Your task to perform on an android device: turn on bluetooth scan Image 0: 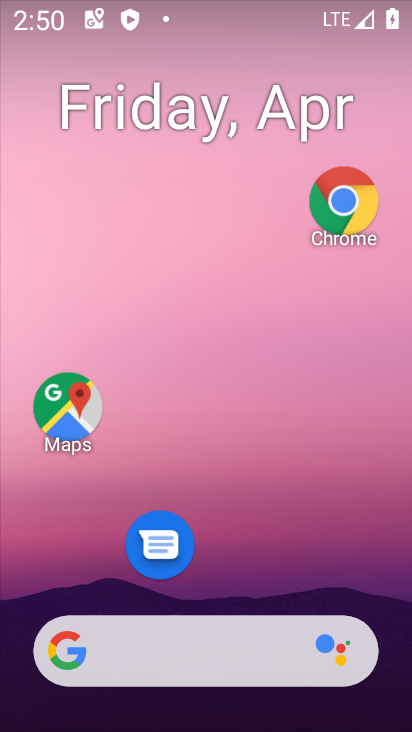
Step 0: click (338, 323)
Your task to perform on an android device: turn on bluetooth scan Image 1: 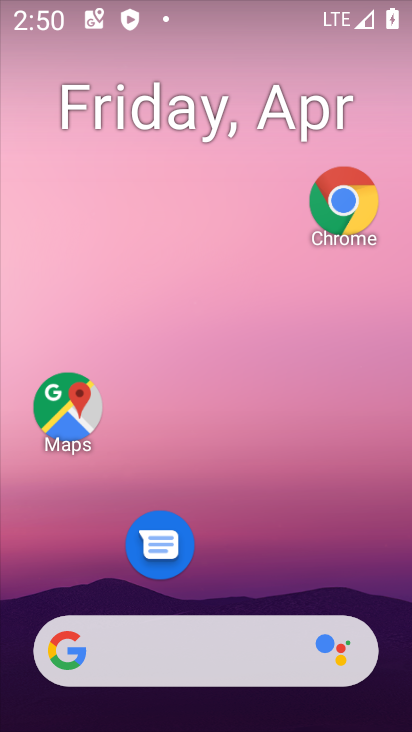
Step 1: drag from (231, 526) to (268, 224)
Your task to perform on an android device: turn on bluetooth scan Image 2: 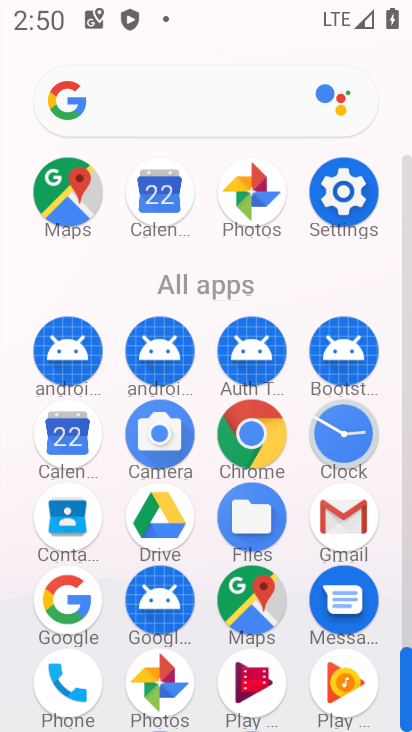
Step 2: click (348, 201)
Your task to perform on an android device: turn on bluetooth scan Image 3: 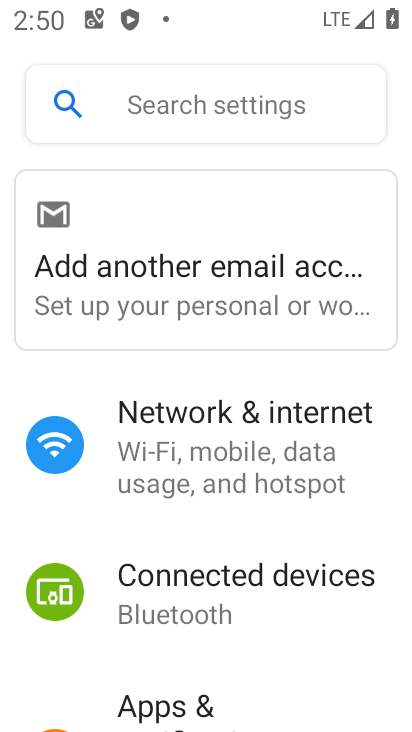
Step 3: drag from (207, 600) to (280, 287)
Your task to perform on an android device: turn on bluetooth scan Image 4: 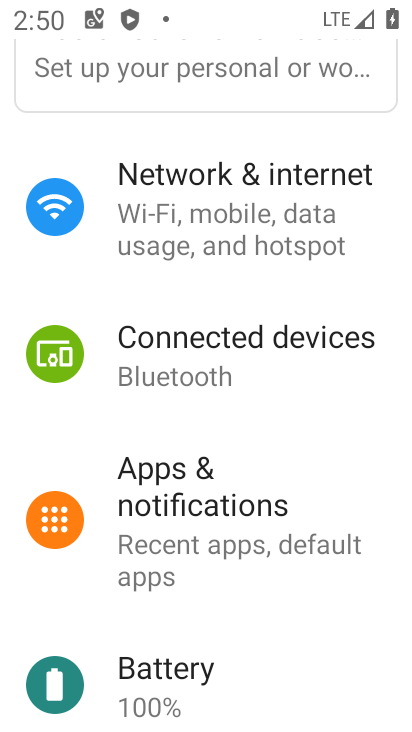
Step 4: drag from (224, 588) to (239, 402)
Your task to perform on an android device: turn on bluetooth scan Image 5: 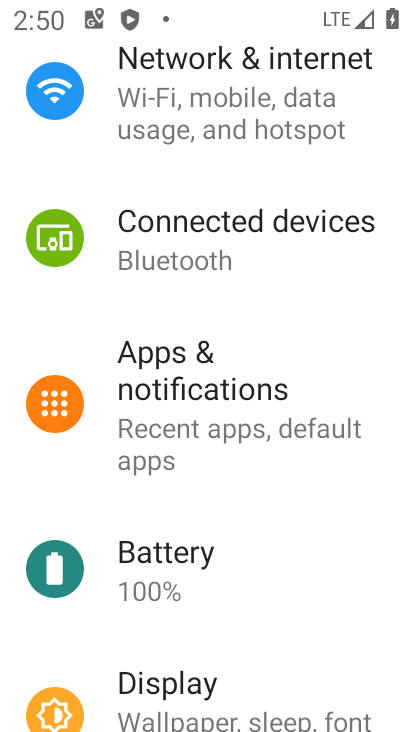
Step 5: drag from (174, 605) to (246, 236)
Your task to perform on an android device: turn on bluetooth scan Image 6: 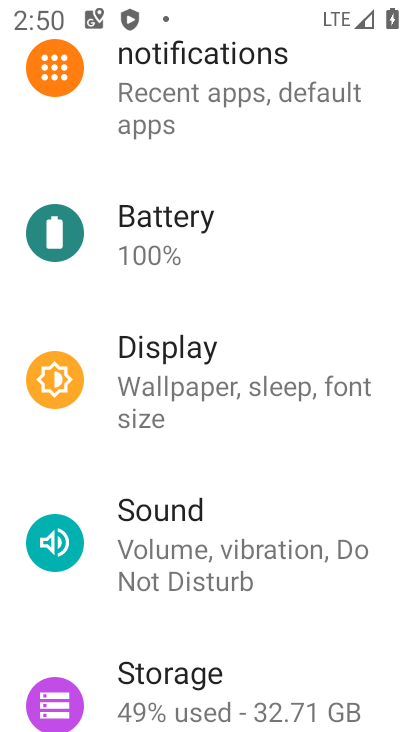
Step 6: drag from (171, 570) to (234, 166)
Your task to perform on an android device: turn on bluetooth scan Image 7: 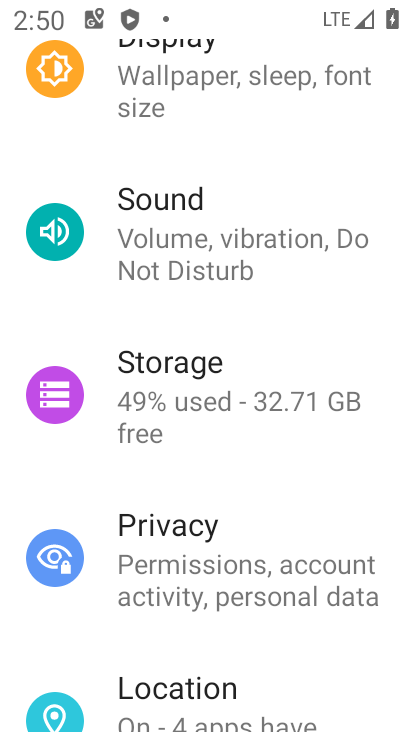
Step 7: drag from (145, 651) to (198, 250)
Your task to perform on an android device: turn on bluetooth scan Image 8: 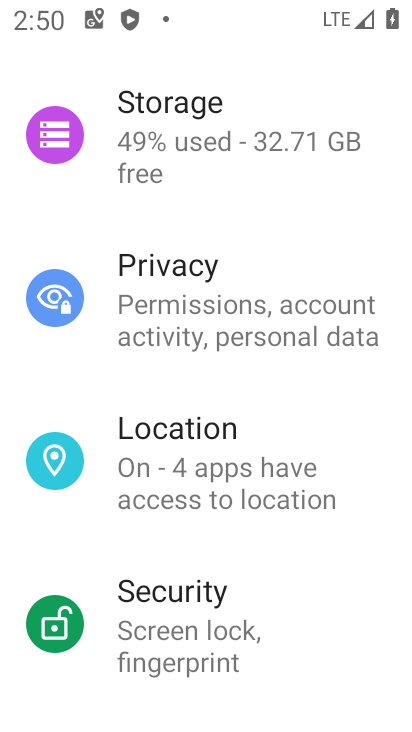
Step 8: click (169, 461)
Your task to perform on an android device: turn on bluetooth scan Image 9: 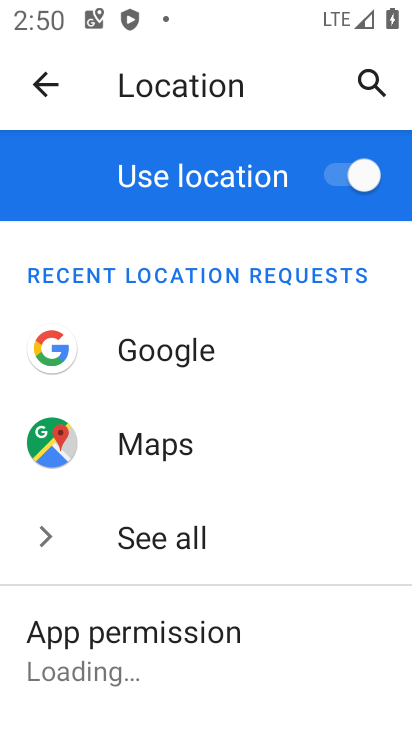
Step 9: drag from (81, 642) to (161, 324)
Your task to perform on an android device: turn on bluetooth scan Image 10: 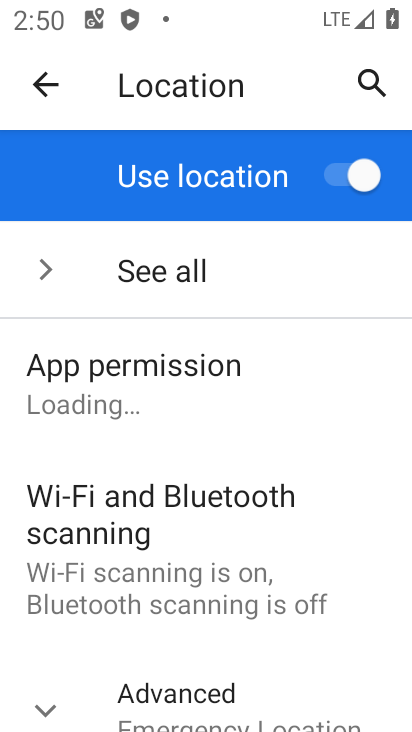
Step 10: click (144, 562)
Your task to perform on an android device: turn on bluetooth scan Image 11: 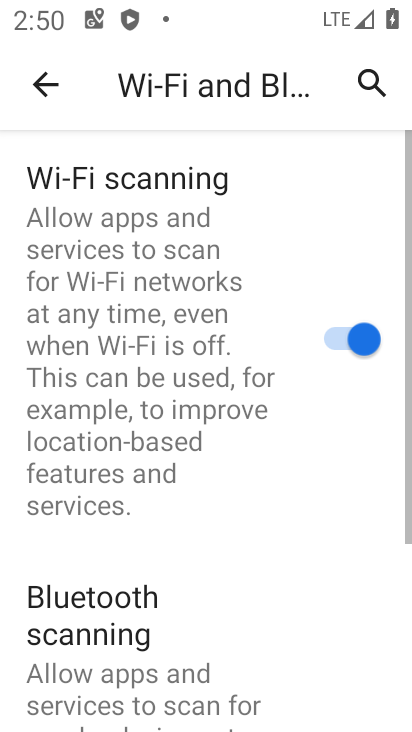
Step 11: drag from (221, 622) to (281, 301)
Your task to perform on an android device: turn on bluetooth scan Image 12: 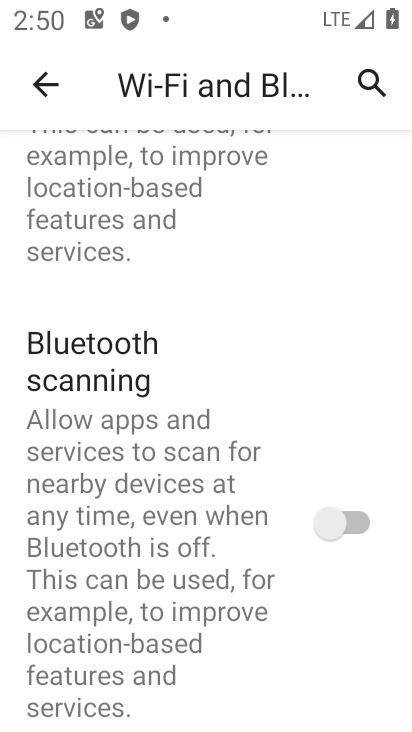
Step 12: click (292, 509)
Your task to perform on an android device: turn on bluetooth scan Image 13: 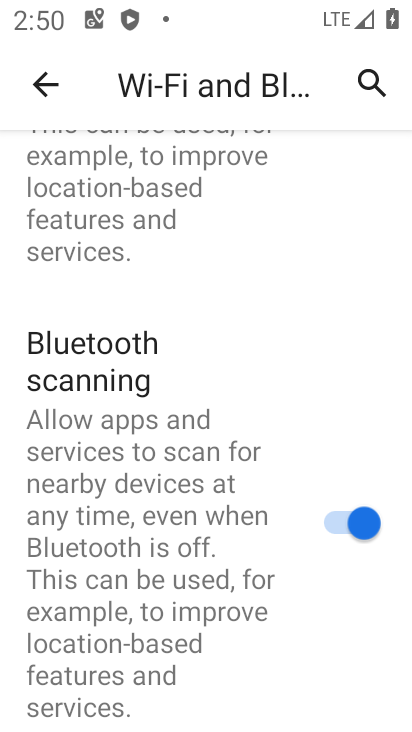
Step 13: task complete